Your task to perform on an android device: What's the weather today? Image 0: 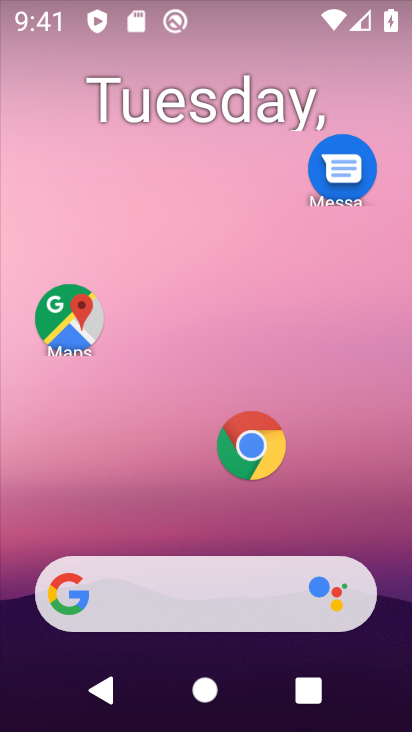
Step 0: click (136, 599)
Your task to perform on an android device: What's the weather today? Image 1: 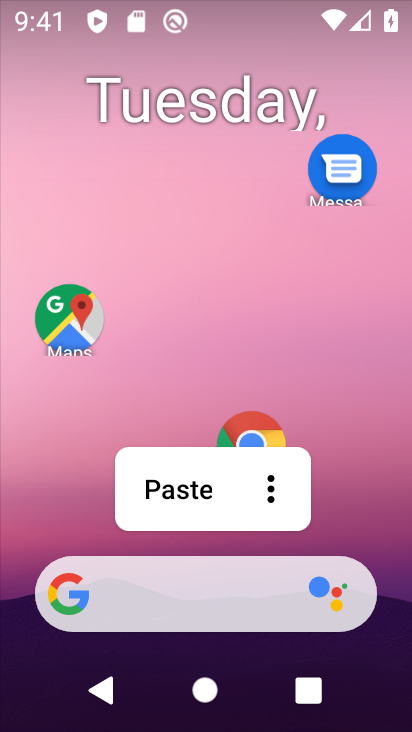
Step 1: click (136, 591)
Your task to perform on an android device: What's the weather today? Image 2: 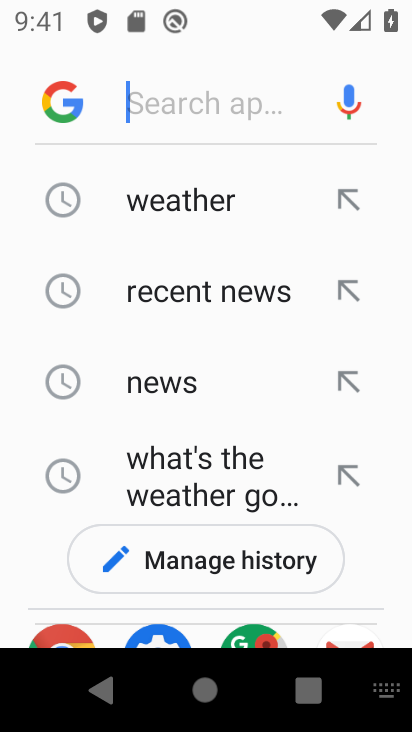
Step 2: click (161, 187)
Your task to perform on an android device: What's the weather today? Image 3: 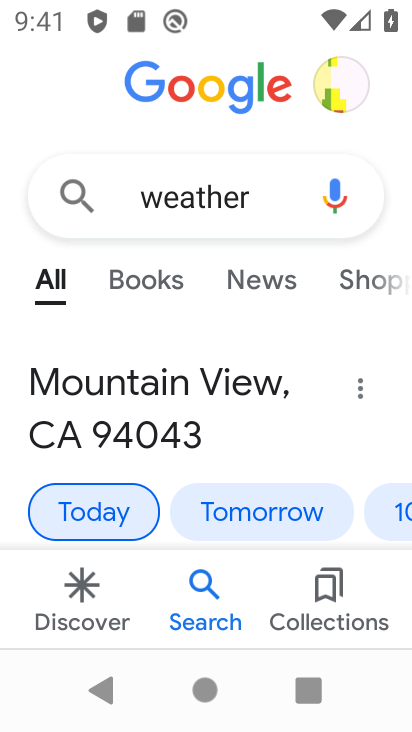
Step 3: task complete